Your task to perform on an android device: Go to wifi settings Image 0: 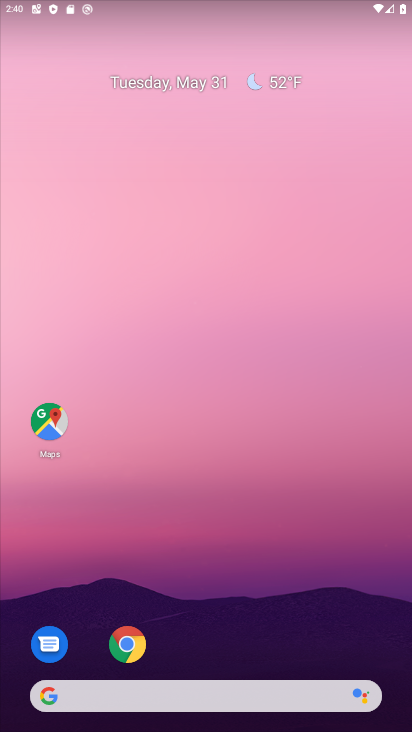
Step 0: drag from (248, 631) to (202, 0)
Your task to perform on an android device: Go to wifi settings Image 1: 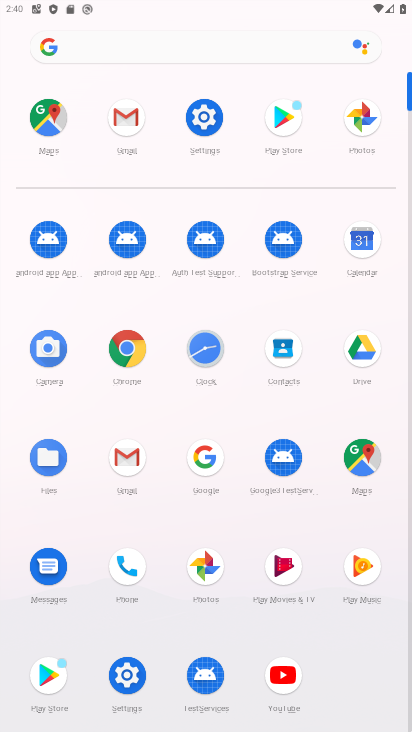
Step 1: click (205, 114)
Your task to perform on an android device: Go to wifi settings Image 2: 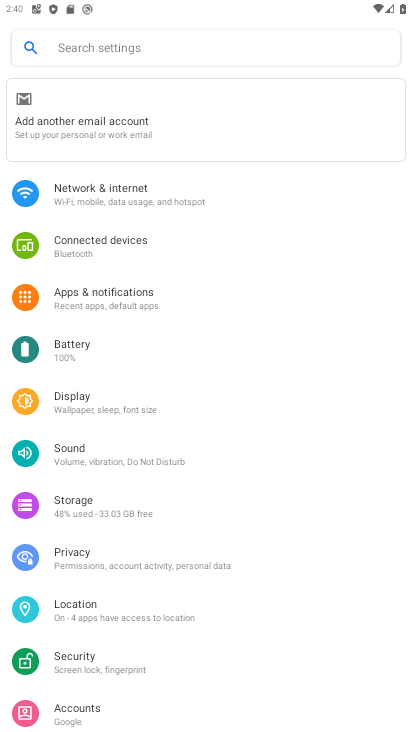
Step 2: click (100, 202)
Your task to perform on an android device: Go to wifi settings Image 3: 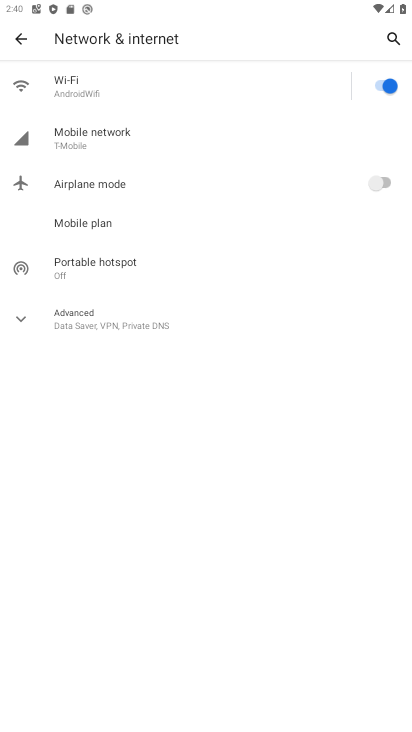
Step 3: click (119, 93)
Your task to perform on an android device: Go to wifi settings Image 4: 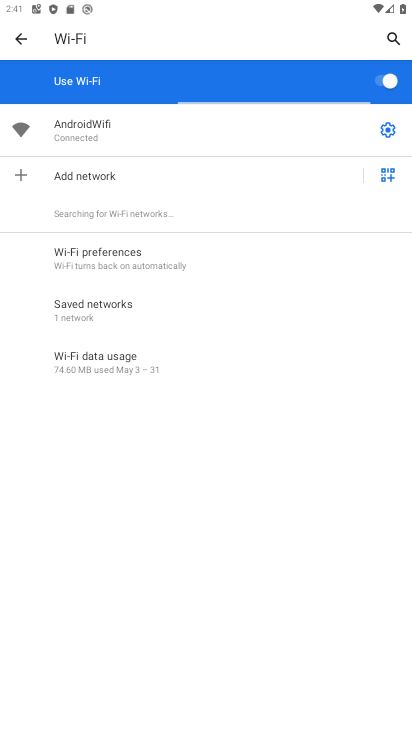
Step 4: task complete